Your task to perform on an android device: toggle priority inbox in the gmail app Image 0: 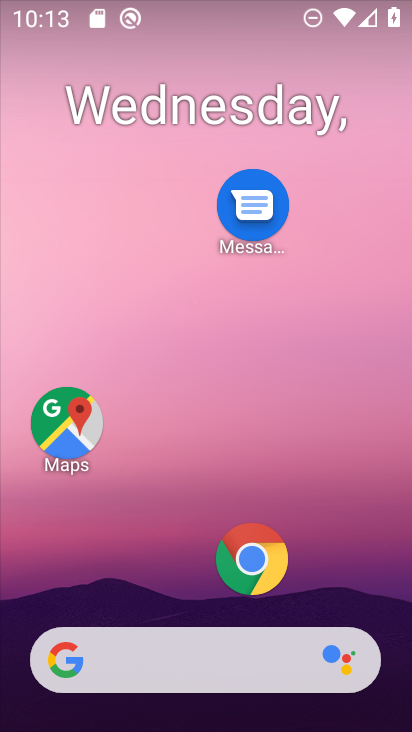
Step 0: drag from (160, 567) to (175, 110)
Your task to perform on an android device: toggle priority inbox in the gmail app Image 1: 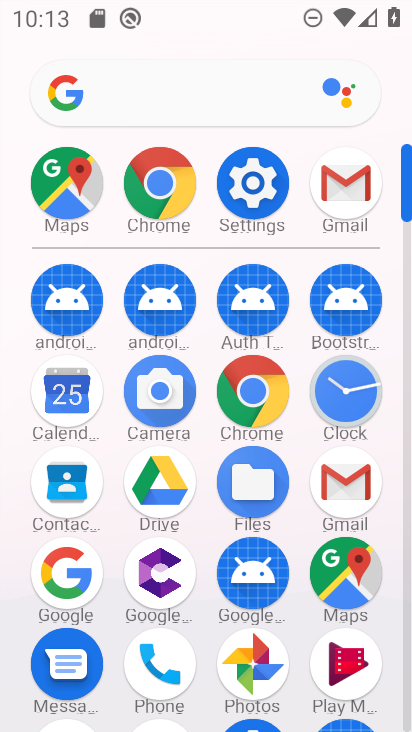
Step 1: click (356, 486)
Your task to perform on an android device: toggle priority inbox in the gmail app Image 2: 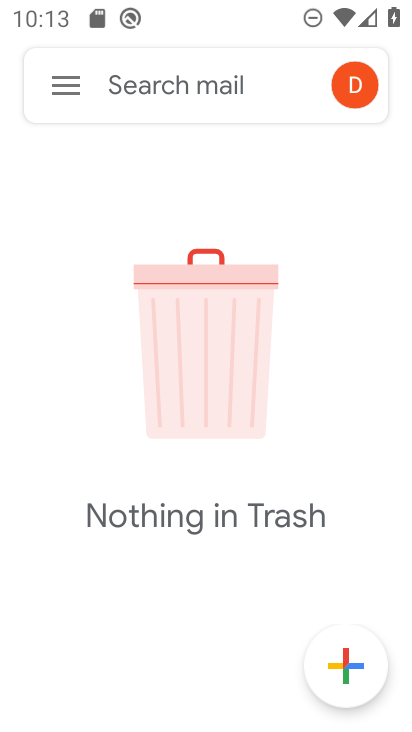
Step 2: press home button
Your task to perform on an android device: toggle priority inbox in the gmail app Image 3: 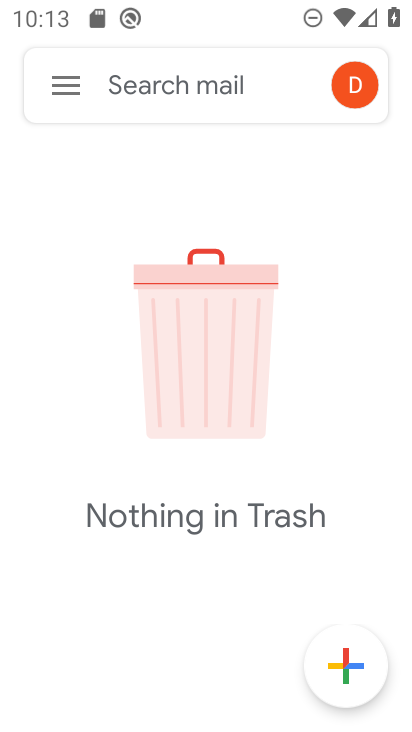
Step 3: press home button
Your task to perform on an android device: toggle priority inbox in the gmail app Image 4: 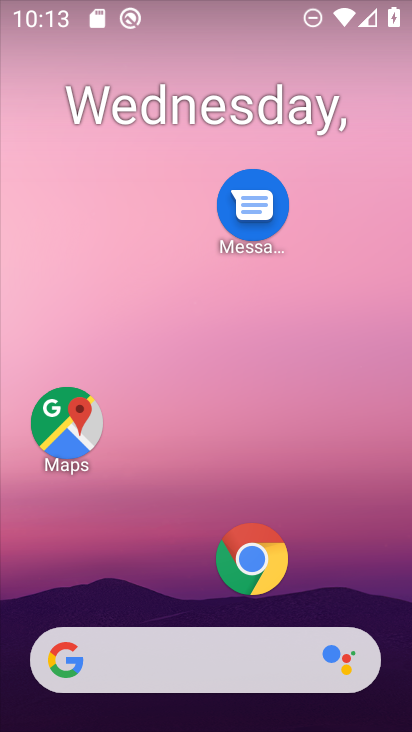
Step 4: drag from (206, 654) to (221, 117)
Your task to perform on an android device: toggle priority inbox in the gmail app Image 5: 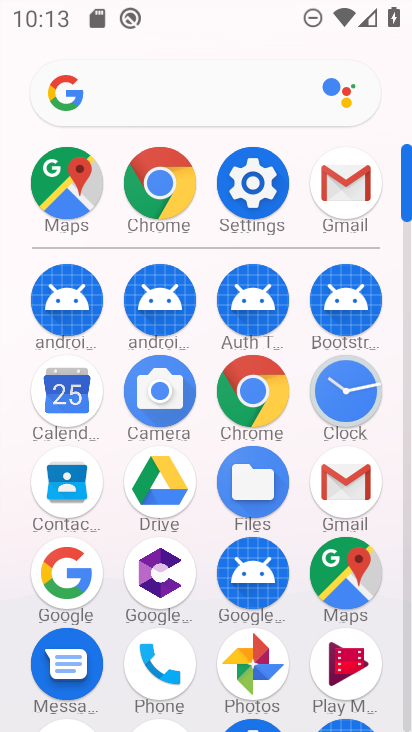
Step 5: click (356, 485)
Your task to perform on an android device: toggle priority inbox in the gmail app Image 6: 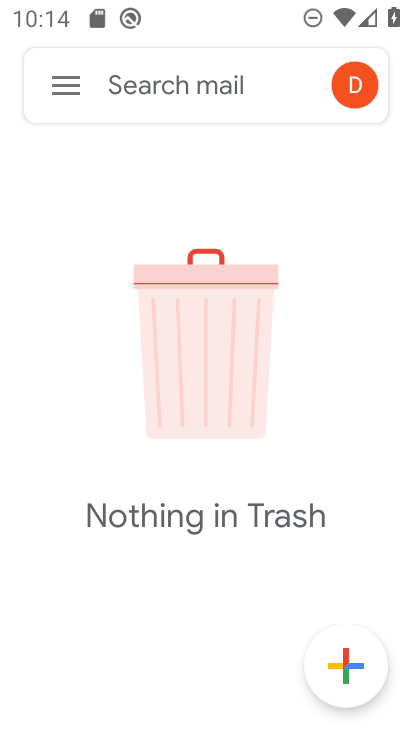
Step 6: click (64, 101)
Your task to perform on an android device: toggle priority inbox in the gmail app Image 7: 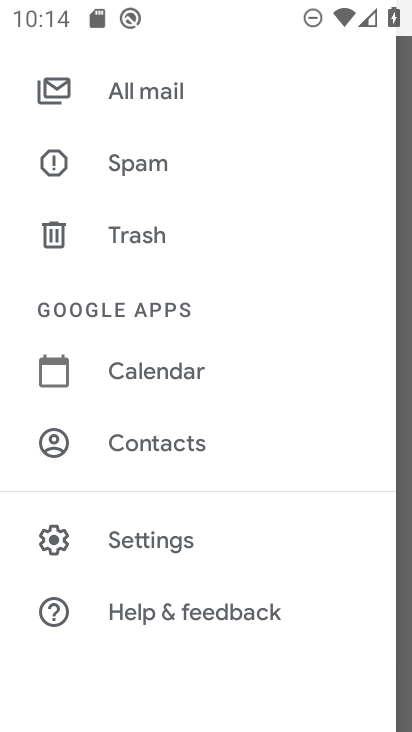
Step 7: click (139, 546)
Your task to perform on an android device: toggle priority inbox in the gmail app Image 8: 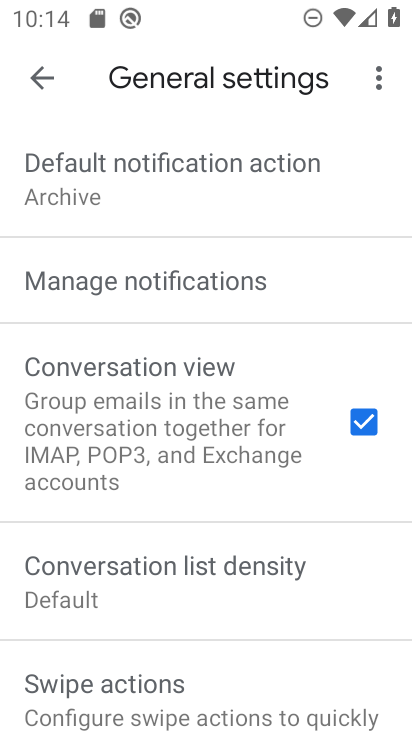
Step 8: click (32, 90)
Your task to perform on an android device: toggle priority inbox in the gmail app Image 9: 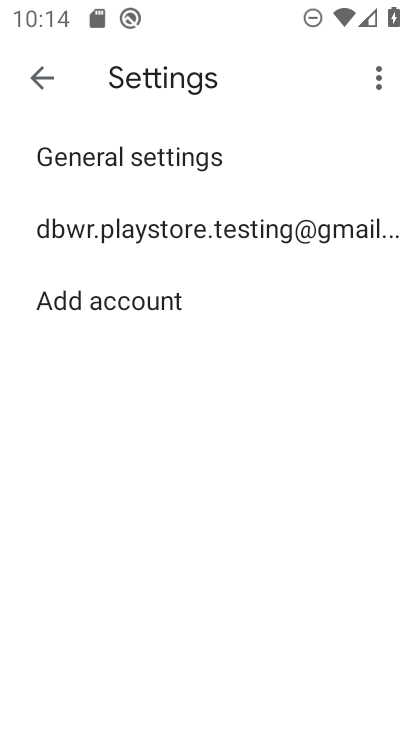
Step 9: click (178, 235)
Your task to perform on an android device: toggle priority inbox in the gmail app Image 10: 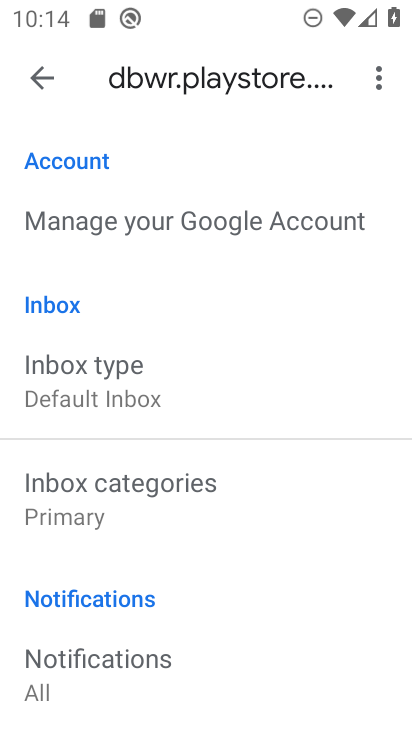
Step 10: click (104, 376)
Your task to perform on an android device: toggle priority inbox in the gmail app Image 11: 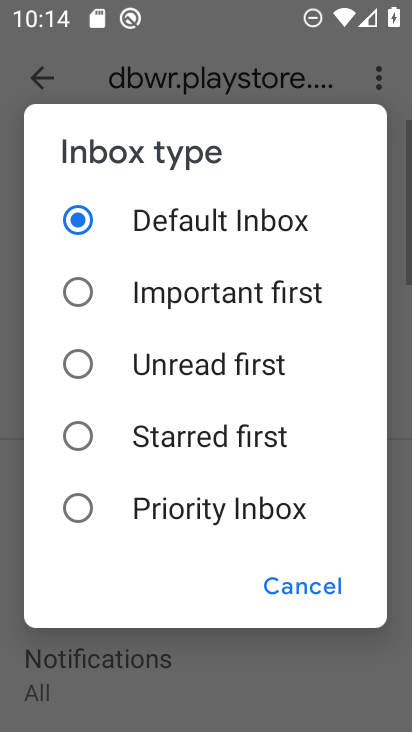
Step 11: click (88, 506)
Your task to perform on an android device: toggle priority inbox in the gmail app Image 12: 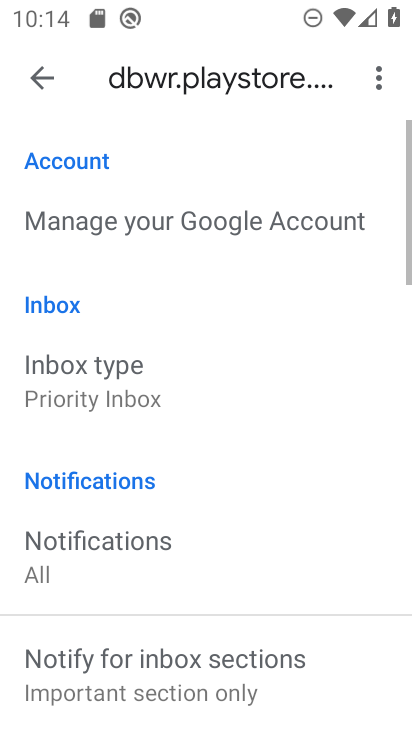
Step 12: task complete